Your task to perform on an android device: What is the recent news? Image 0: 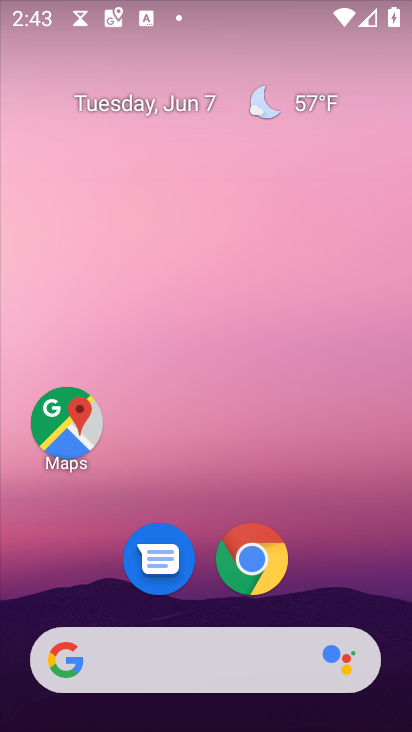
Step 0: click (199, 671)
Your task to perform on an android device: What is the recent news? Image 1: 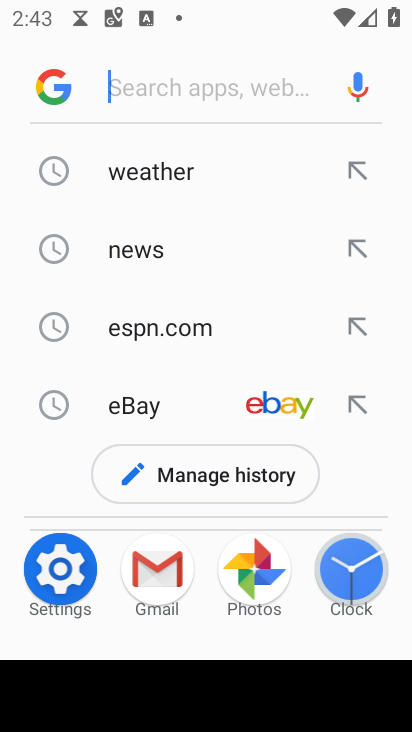
Step 1: click (177, 245)
Your task to perform on an android device: What is the recent news? Image 2: 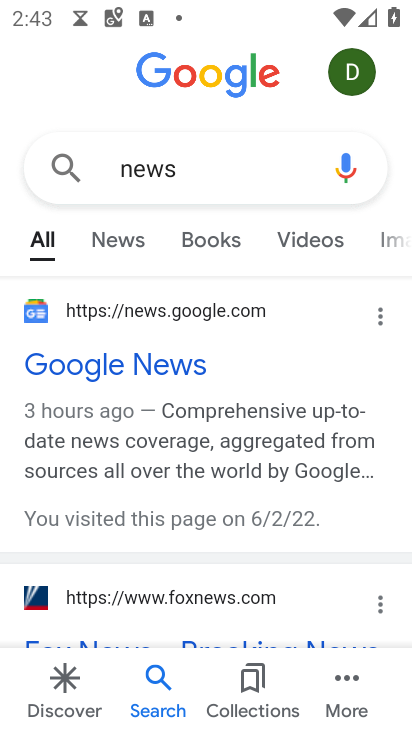
Step 2: task complete